Your task to perform on an android device: What's the weather going to be this weekend? Image 0: 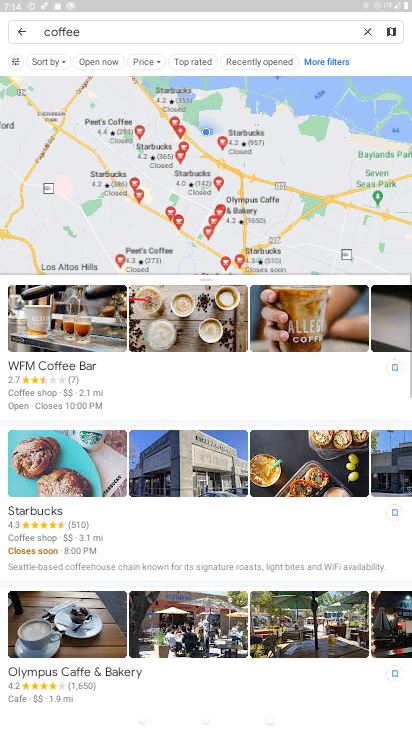
Step 0: press home button
Your task to perform on an android device: What's the weather going to be this weekend? Image 1: 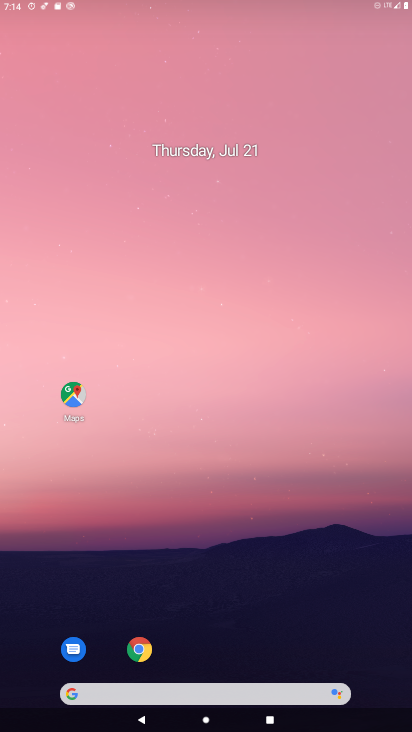
Step 1: drag from (352, 635) to (208, 0)
Your task to perform on an android device: What's the weather going to be this weekend? Image 2: 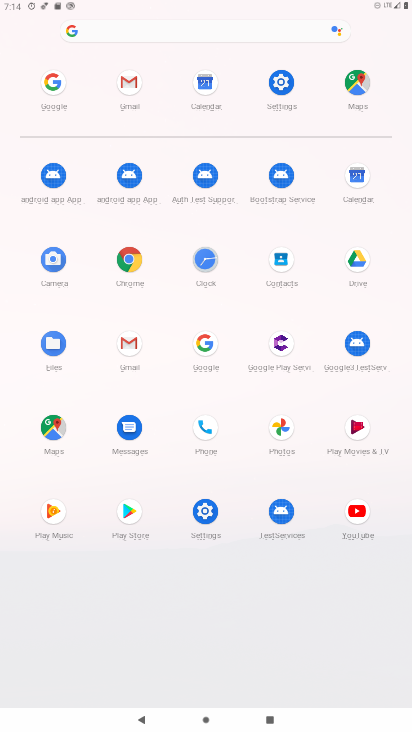
Step 2: click (198, 342)
Your task to perform on an android device: What's the weather going to be this weekend? Image 3: 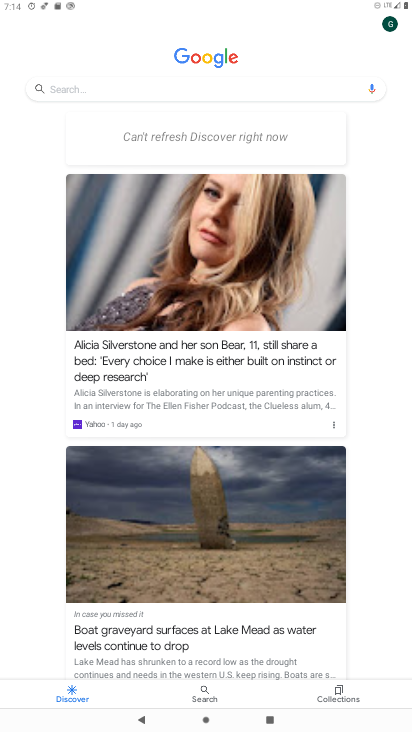
Step 3: click (120, 95)
Your task to perform on an android device: What's the weather going to be this weekend? Image 4: 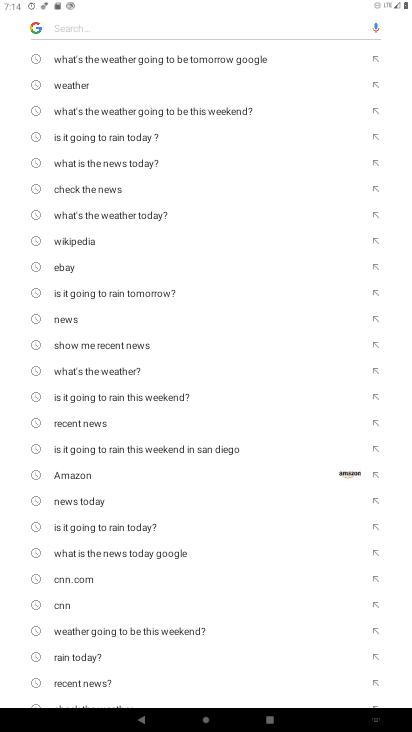
Step 4: click (150, 116)
Your task to perform on an android device: What's the weather going to be this weekend? Image 5: 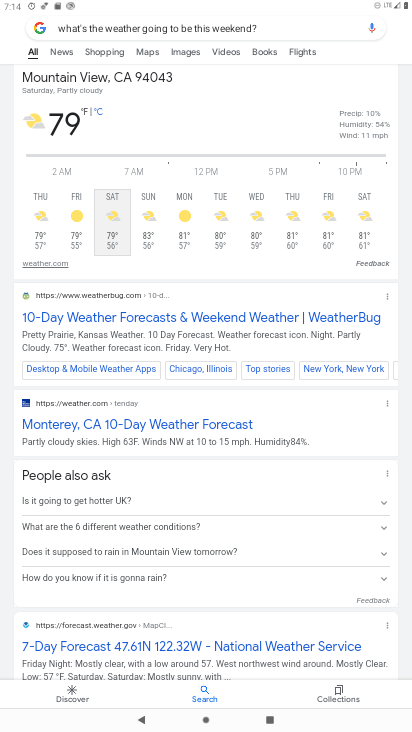
Step 5: task complete